Your task to perform on an android device: turn off notifications in google photos Image 0: 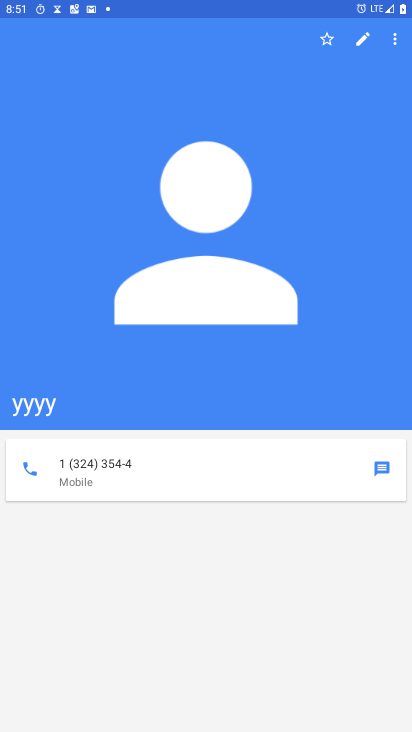
Step 0: press home button
Your task to perform on an android device: turn off notifications in google photos Image 1: 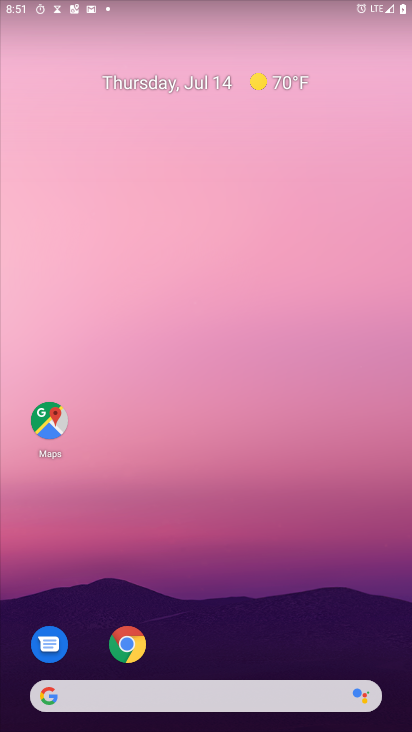
Step 1: drag from (219, 695) to (341, 10)
Your task to perform on an android device: turn off notifications in google photos Image 2: 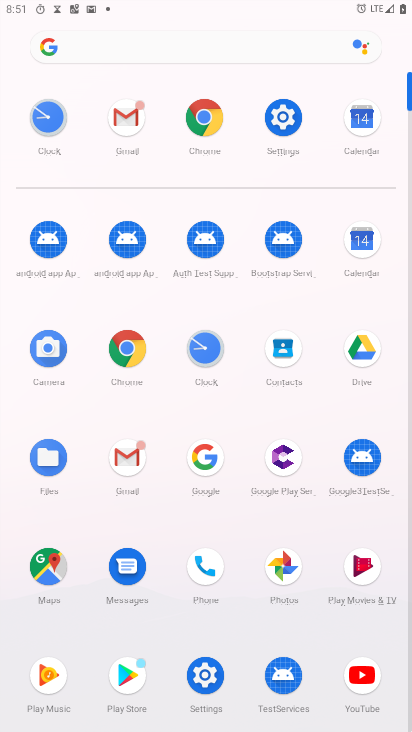
Step 2: click (288, 573)
Your task to perform on an android device: turn off notifications in google photos Image 3: 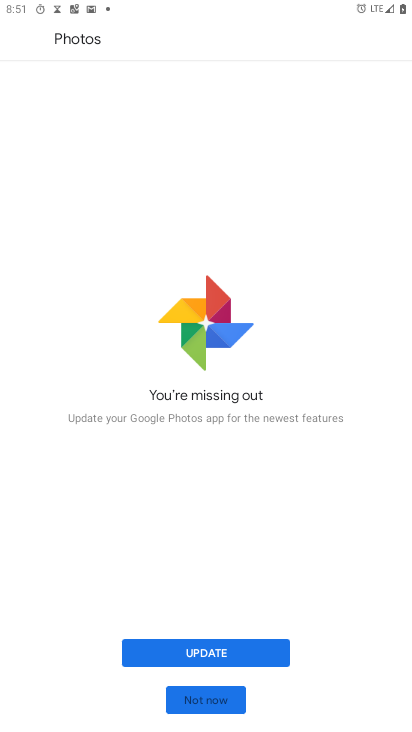
Step 3: click (208, 702)
Your task to perform on an android device: turn off notifications in google photos Image 4: 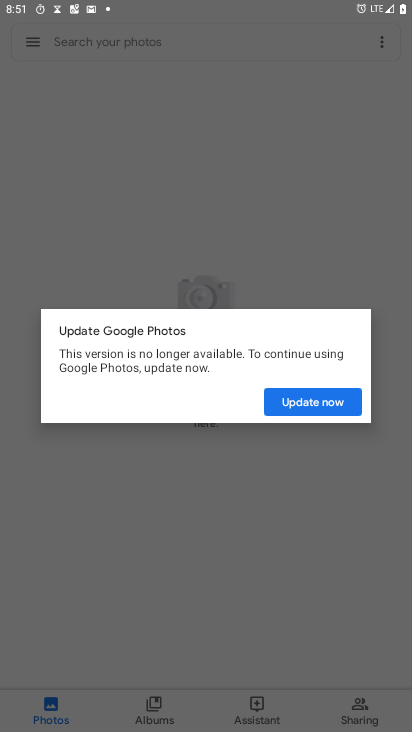
Step 4: click (300, 402)
Your task to perform on an android device: turn off notifications in google photos Image 5: 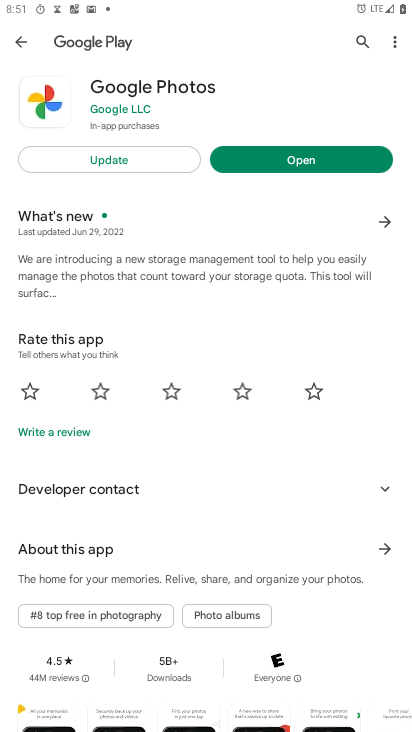
Step 5: click (296, 164)
Your task to perform on an android device: turn off notifications in google photos Image 6: 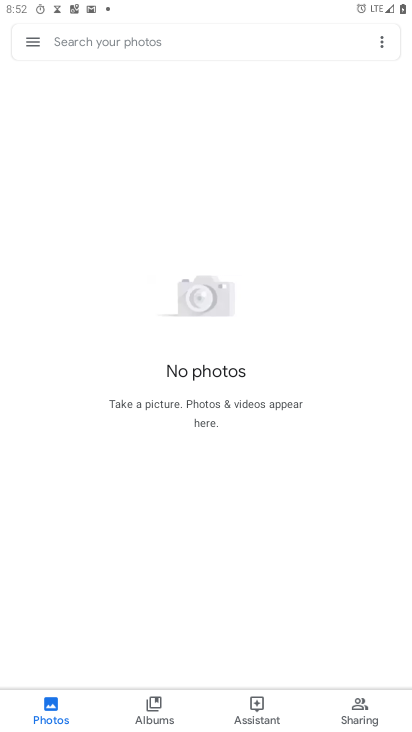
Step 6: click (32, 43)
Your task to perform on an android device: turn off notifications in google photos Image 7: 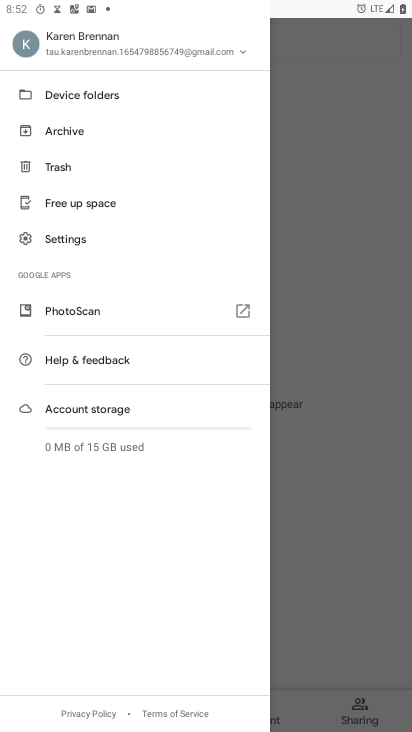
Step 7: click (71, 234)
Your task to perform on an android device: turn off notifications in google photos Image 8: 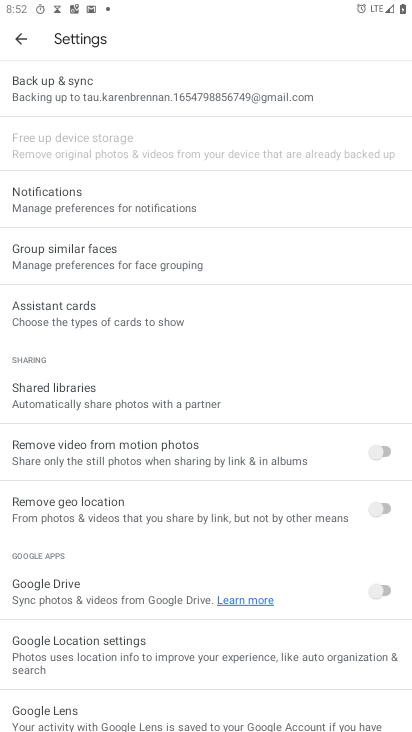
Step 8: click (126, 210)
Your task to perform on an android device: turn off notifications in google photos Image 9: 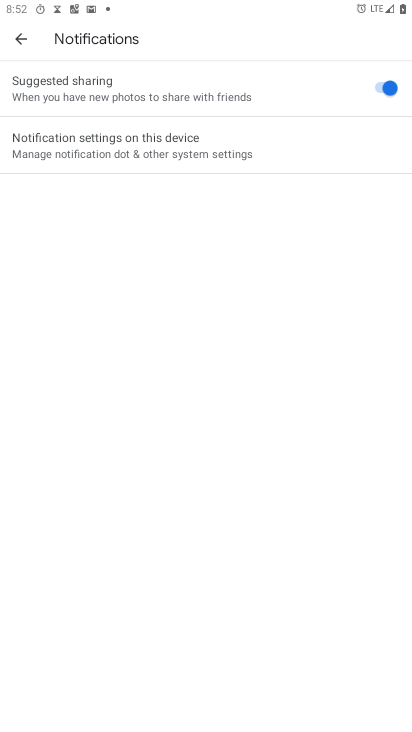
Step 9: click (176, 147)
Your task to perform on an android device: turn off notifications in google photos Image 10: 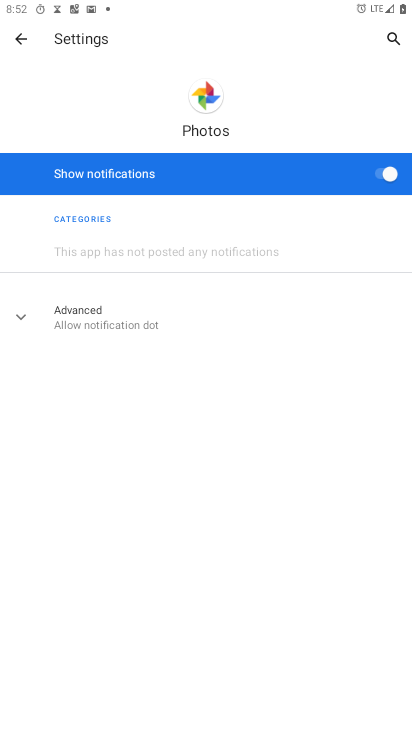
Step 10: click (378, 185)
Your task to perform on an android device: turn off notifications in google photos Image 11: 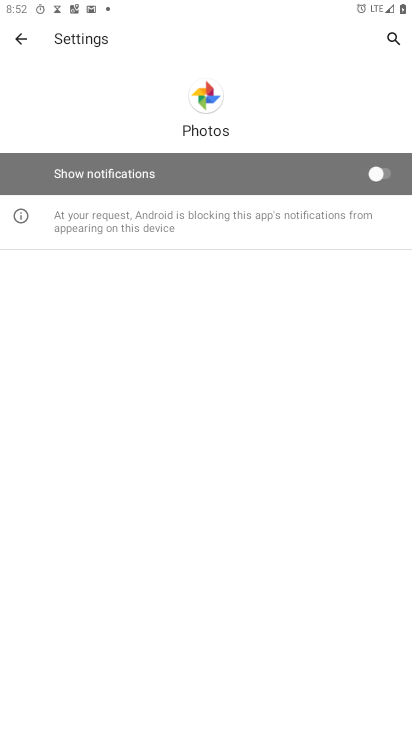
Step 11: task complete